Your task to perform on an android device: Open network settings Image 0: 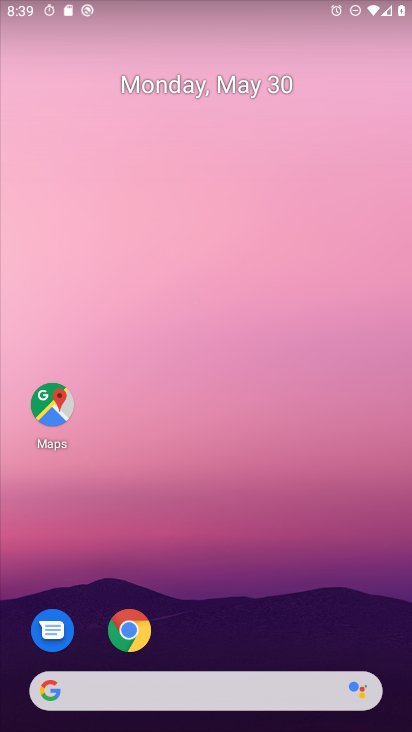
Step 0: drag from (335, 621) to (350, 0)
Your task to perform on an android device: Open network settings Image 1: 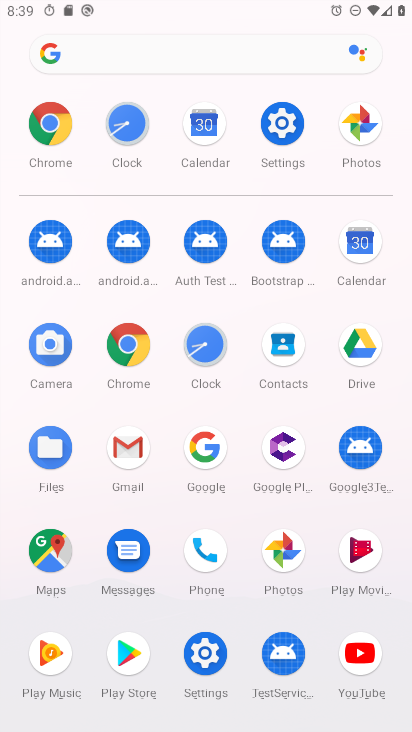
Step 1: click (289, 119)
Your task to perform on an android device: Open network settings Image 2: 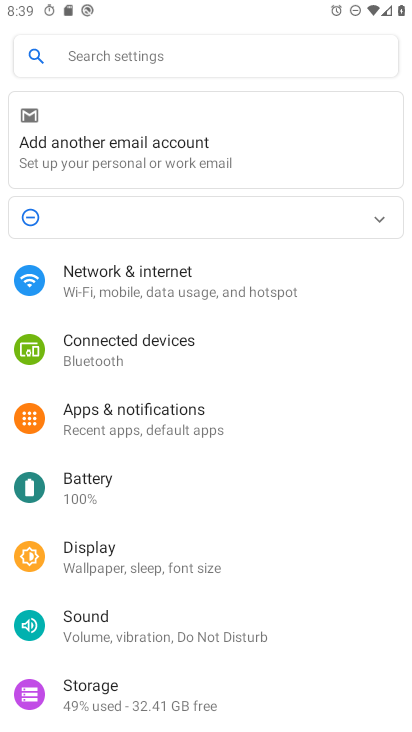
Step 2: click (152, 297)
Your task to perform on an android device: Open network settings Image 3: 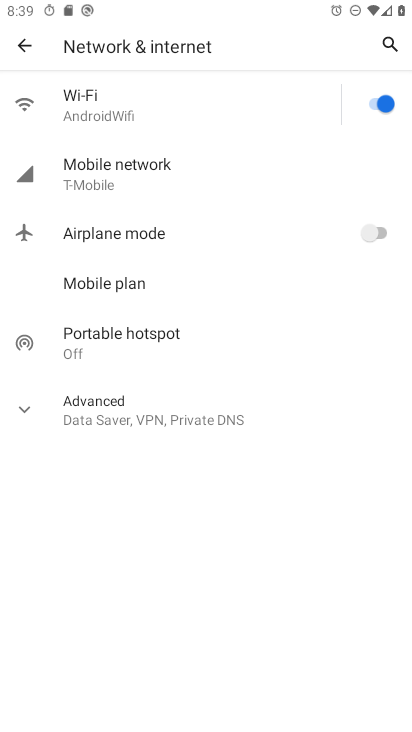
Step 3: task complete